Your task to perform on an android device: allow notifications from all sites in the chrome app Image 0: 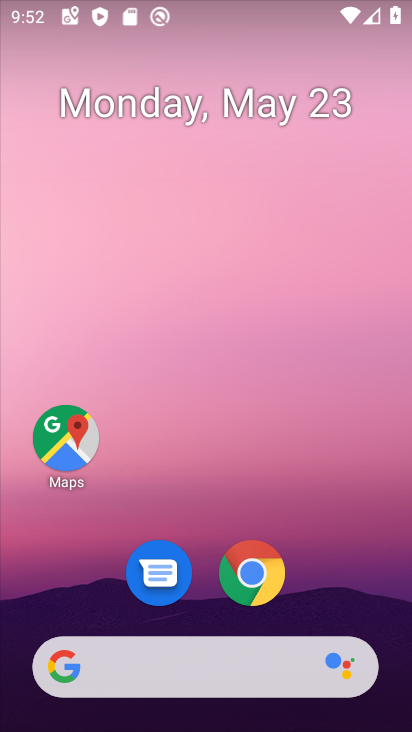
Step 0: drag from (386, 615) to (373, 129)
Your task to perform on an android device: allow notifications from all sites in the chrome app Image 1: 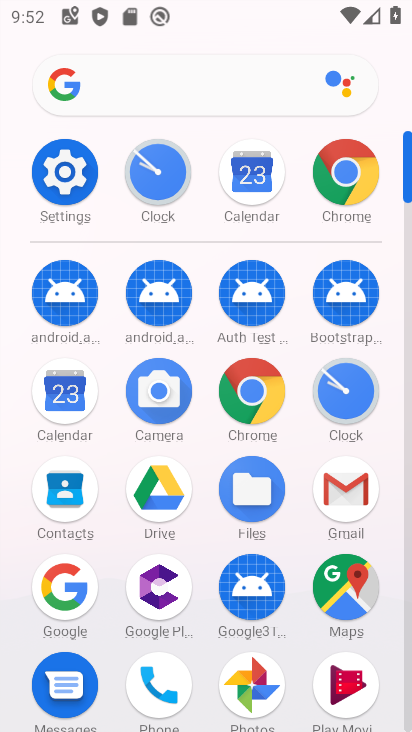
Step 1: click (254, 410)
Your task to perform on an android device: allow notifications from all sites in the chrome app Image 2: 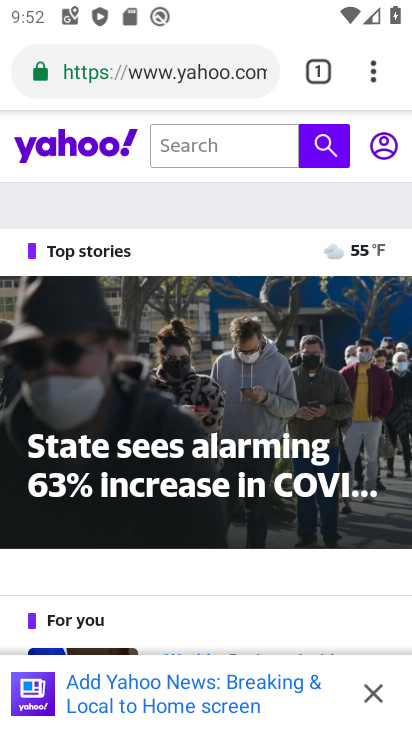
Step 2: click (372, 83)
Your task to perform on an android device: allow notifications from all sites in the chrome app Image 3: 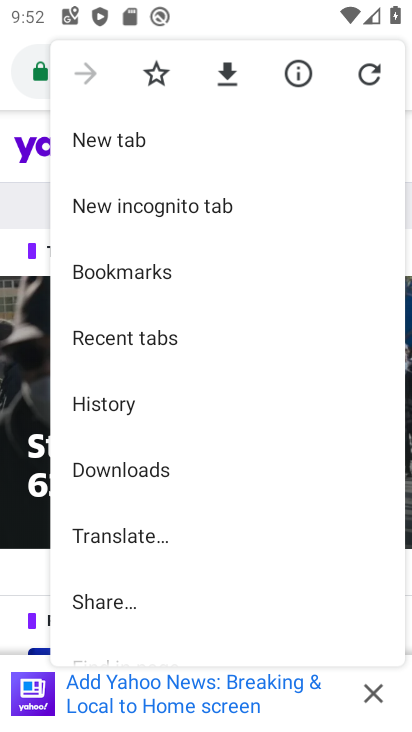
Step 3: drag from (334, 513) to (332, 364)
Your task to perform on an android device: allow notifications from all sites in the chrome app Image 4: 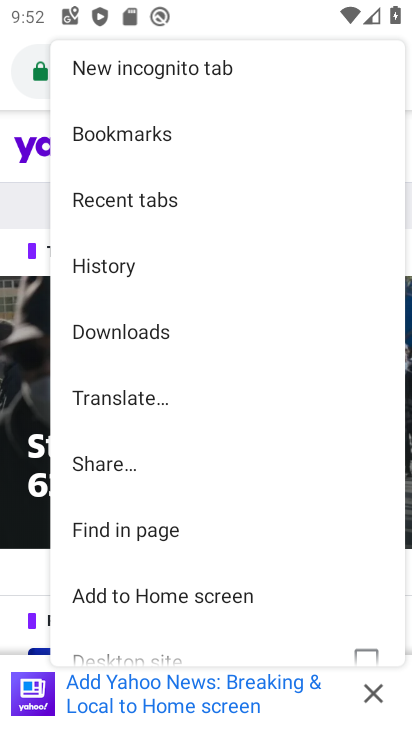
Step 4: drag from (312, 593) to (313, 492)
Your task to perform on an android device: allow notifications from all sites in the chrome app Image 5: 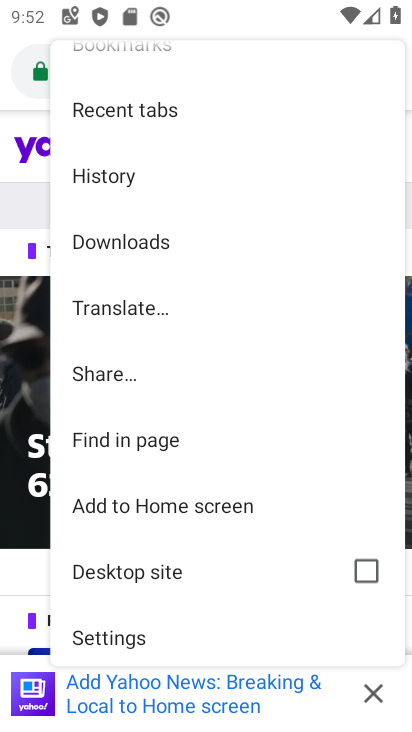
Step 5: drag from (318, 613) to (311, 504)
Your task to perform on an android device: allow notifications from all sites in the chrome app Image 6: 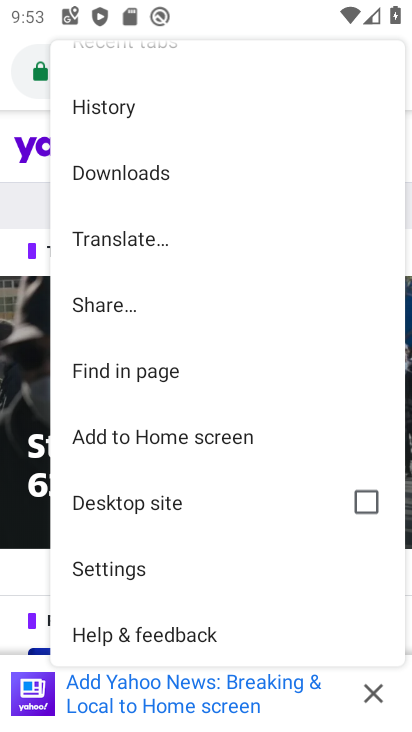
Step 6: click (128, 566)
Your task to perform on an android device: allow notifications from all sites in the chrome app Image 7: 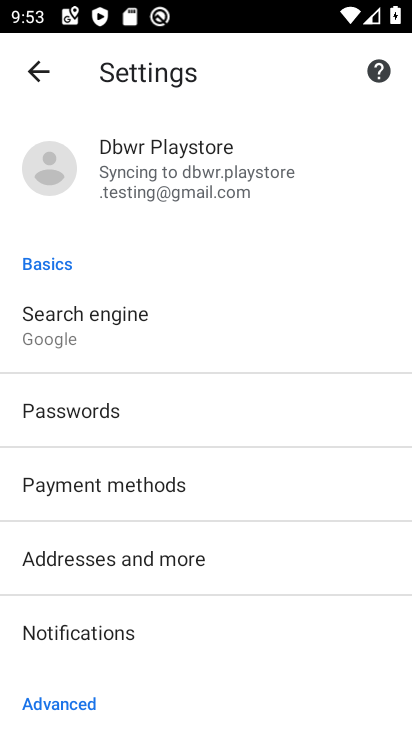
Step 7: drag from (355, 668) to (344, 573)
Your task to perform on an android device: allow notifications from all sites in the chrome app Image 8: 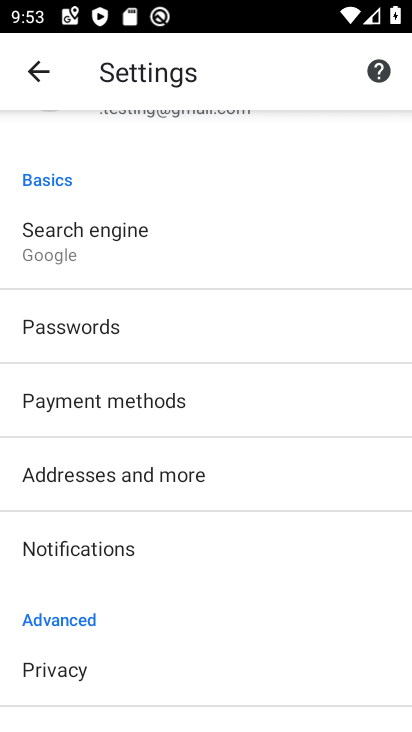
Step 8: drag from (326, 647) to (325, 542)
Your task to perform on an android device: allow notifications from all sites in the chrome app Image 9: 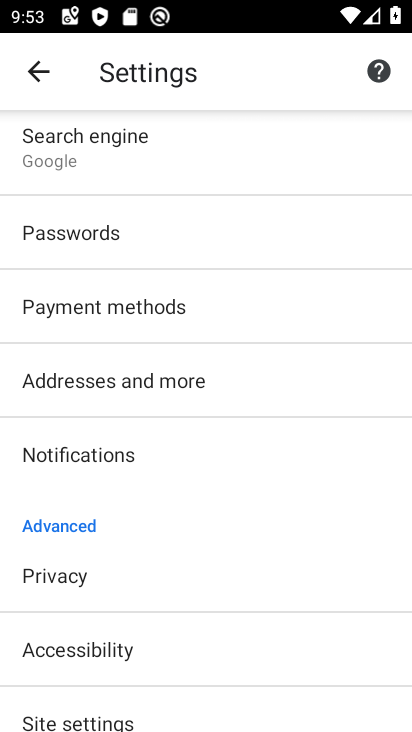
Step 9: drag from (306, 612) to (312, 522)
Your task to perform on an android device: allow notifications from all sites in the chrome app Image 10: 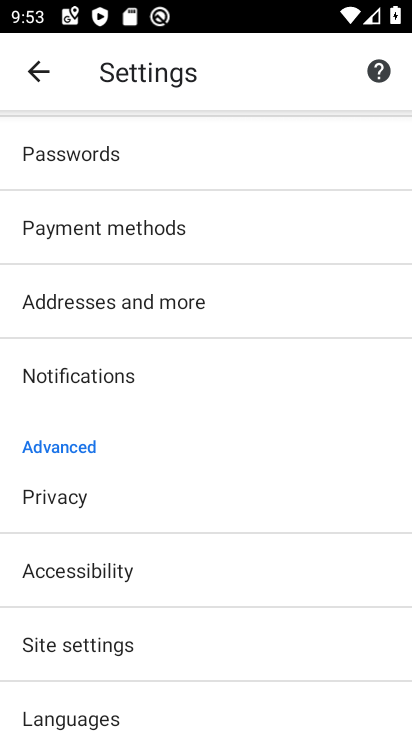
Step 10: drag from (314, 641) to (320, 550)
Your task to perform on an android device: allow notifications from all sites in the chrome app Image 11: 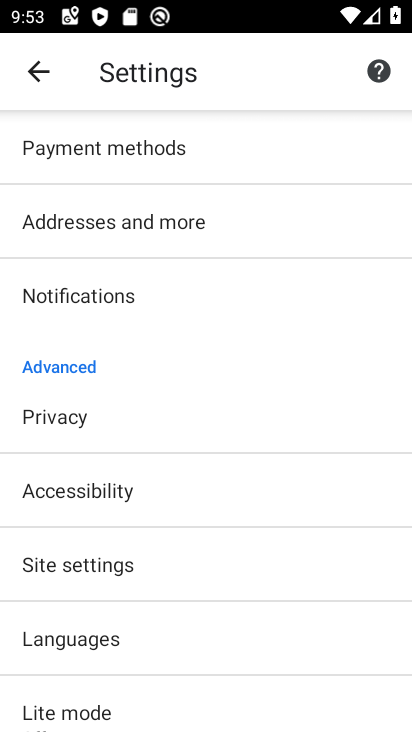
Step 11: drag from (310, 612) to (312, 517)
Your task to perform on an android device: allow notifications from all sites in the chrome app Image 12: 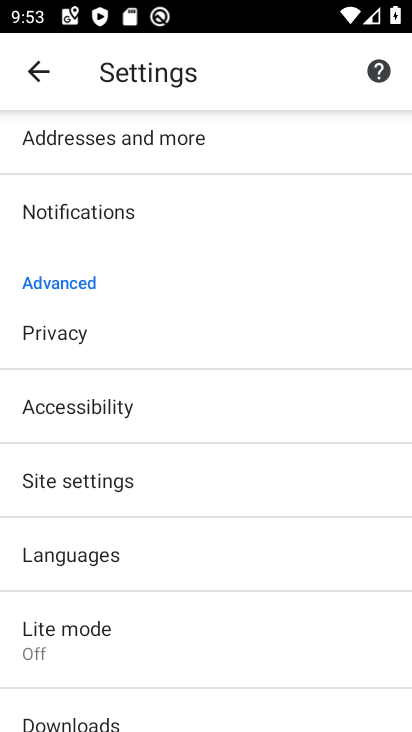
Step 12: drag from (315, 643) to (317, 552)
Your task to perform on an android device: allow notifications from all sites in the chrome app Image 13: 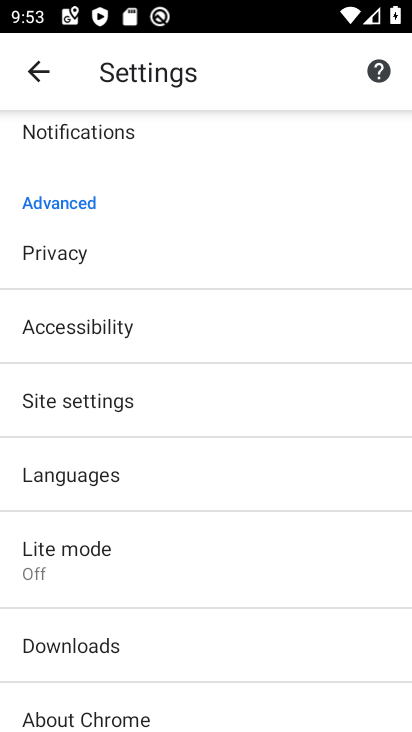
Step 13: drag from (258, 646) to (259, 543)
Your task to perform on an android device: allow notifications from all sites in the chrome app Image 14: 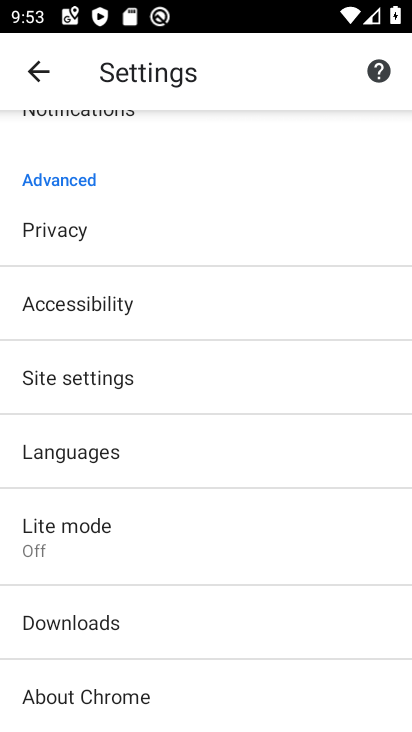
Step 14: click (199, 379)
Your task to perform on an android device: allow notifications from all sites in the chrome app Image 15: 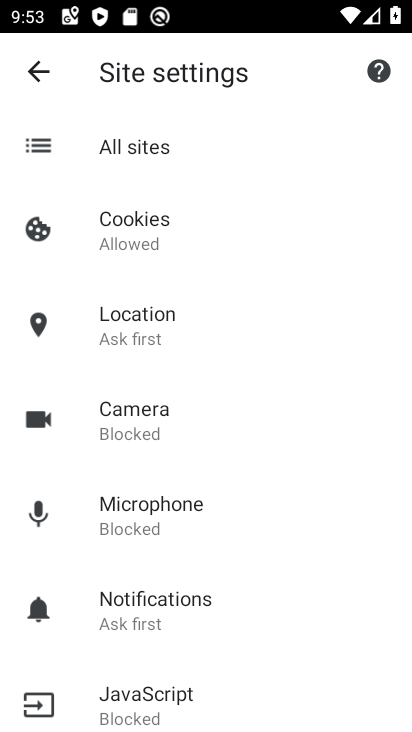
Step 15: drag from (308, 593) to (313, 511)
Your task to perform on an android device: allow notifications from all sites in the chrome app Image 16: 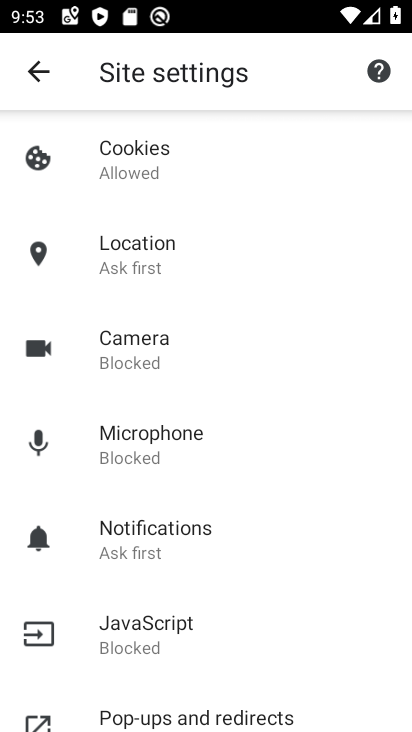
Step 16: drag from (347, 660) to (352, 541)
Your task to perform on an android device: allow notifications from all sites in the chrome app Image 17: 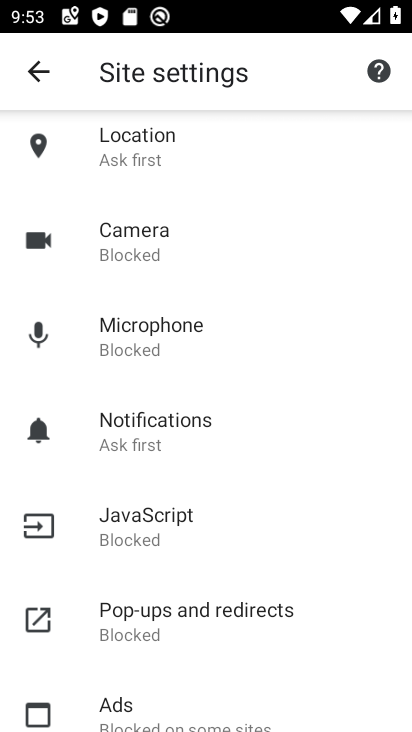
Step 17: drag from (352, 637) to (360, 551)
Your task to perform on an android device: allow notifications from all sites in the chrome app Image 18: 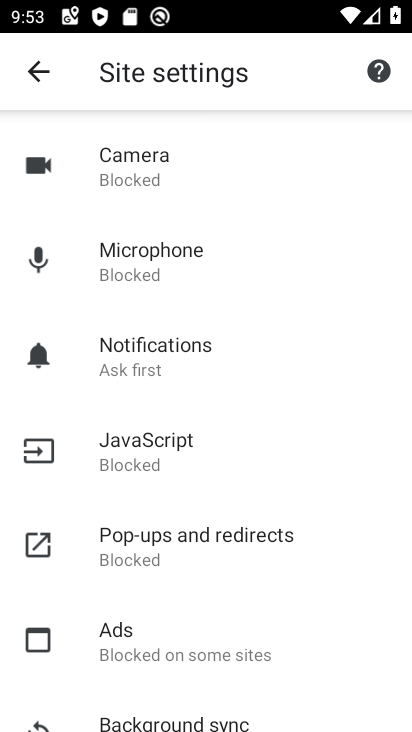
Step 18: drag from (357, 650) to (359, 548)
Your task to perform on an android device: allow notifications from all sites in the chrome app Image 19: 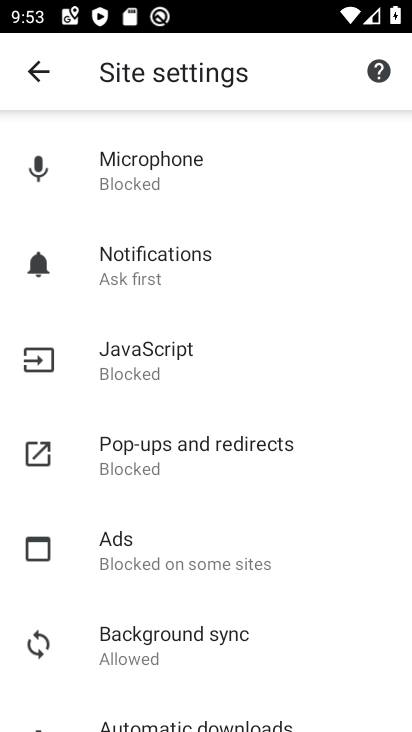
Step 19: drag from (355, 655) to (361, 562)
Your task to perform on an android device: allow notifications from all sites in the chrome app Image 20: 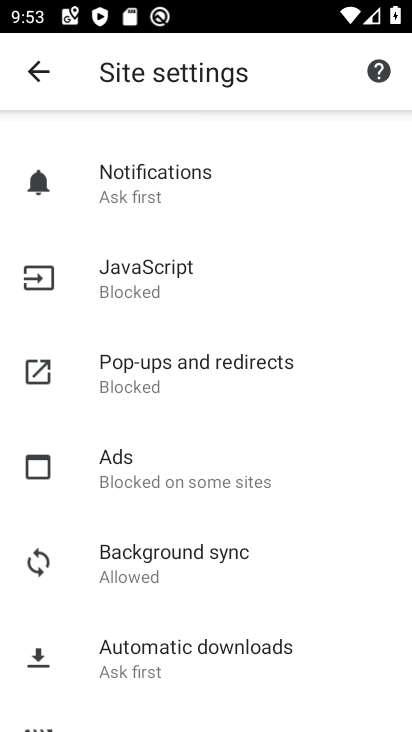
Step 20: drag from (359, 662) to (368, 576)
Your task to perform on an android device: allow notifications from all sites in the chrome app Image 21: 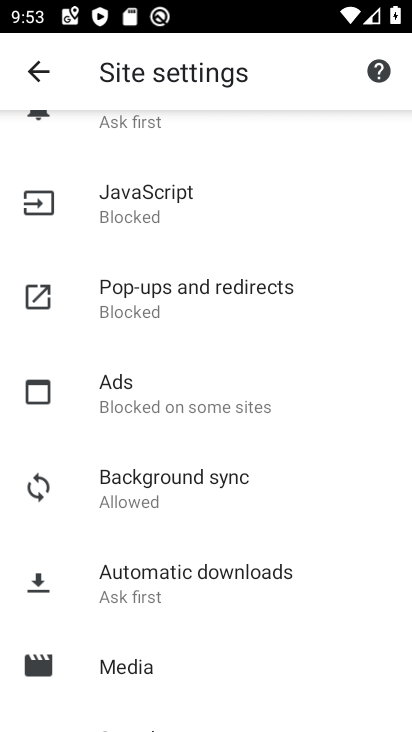
Step 21: drag from (370, 410) to (360, 543)
Your task to perform on an android device: allow notifications from all sites in the chrome app Image 22: 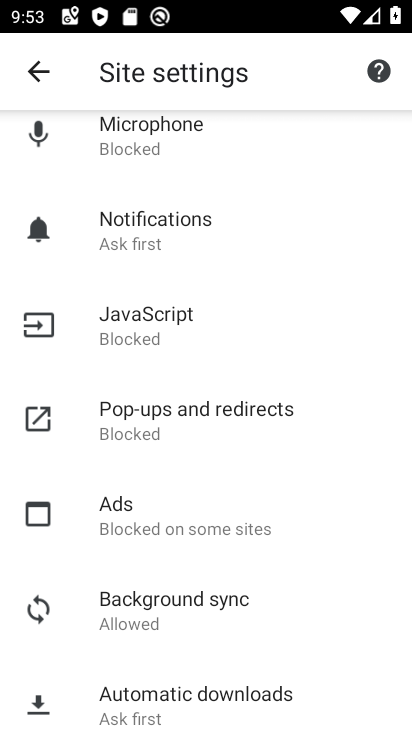
Step 22: drag from (350, 382) to (350, 503)
Your task to perform on an android device: allow notifications from all sites in the chrome app Image 23: 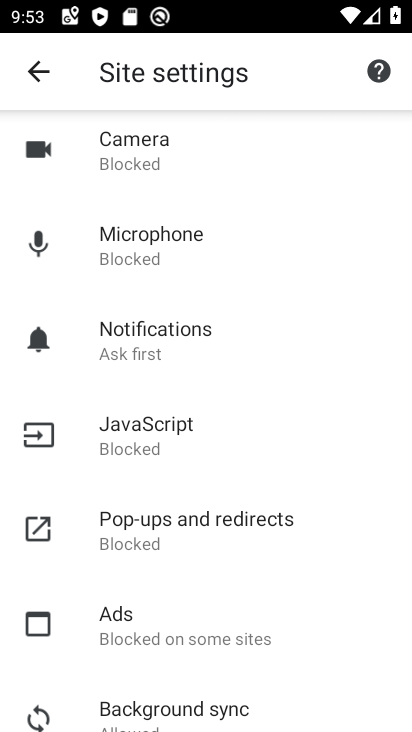
Step 23: drag from (344, 358) to (333, 464)
Your task to perform on an android device: allow notifications from all sites in the chrome app Image 24: 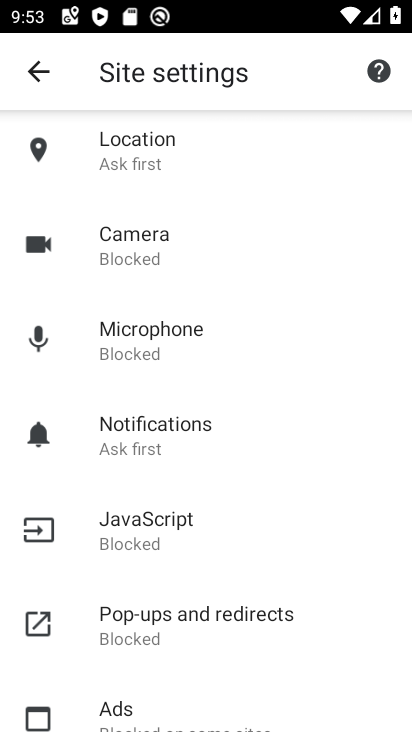
Step 24: drag from (335, 366) to (335, 468)
Your task to perform on an android device: allow notifications from all sites in the chrome app Image 25: 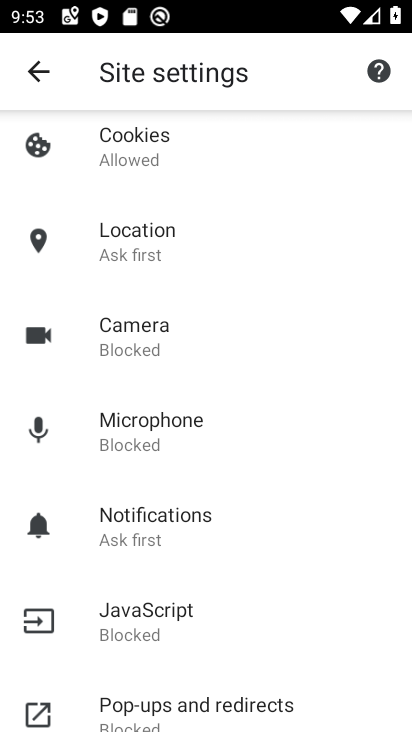
Step 25: drag from (319, 315) to (319, 457)
Your task to perform on an android device: allow notifications from all sites in the chrome app Image 26: 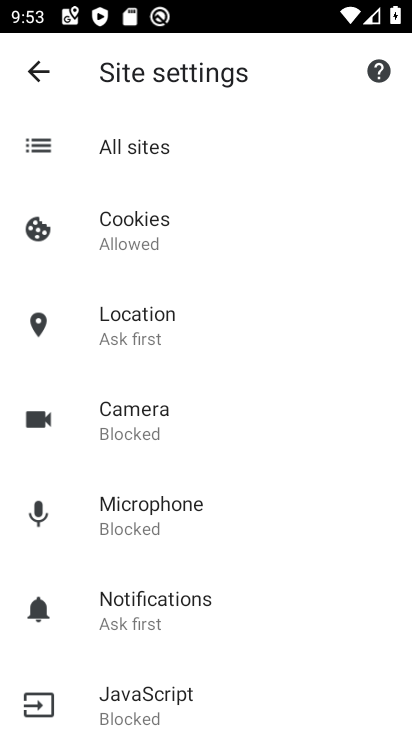
Step 26: drag from (319, 290) to (319, 405)
Your task to perform on an android device: allow notifications from all sites in the chrome app Image 27: 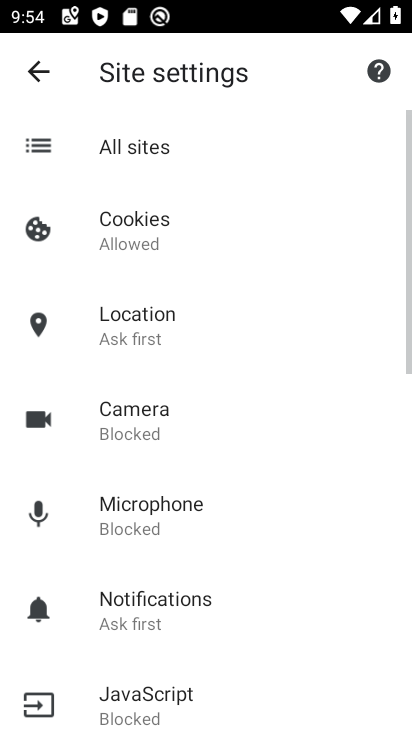
Step 27: drag from (319, 494) to (318, 395)
Your task to perform on an android device: allow notifications from all sites in the chrome app Image 28: 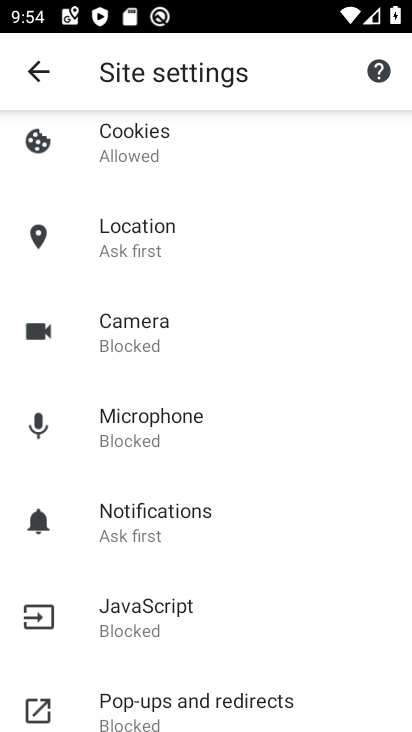
Step 28: click (247, 522)
Your task to perform on an android device: allow notifications from all sites in the chrome app Image 29: 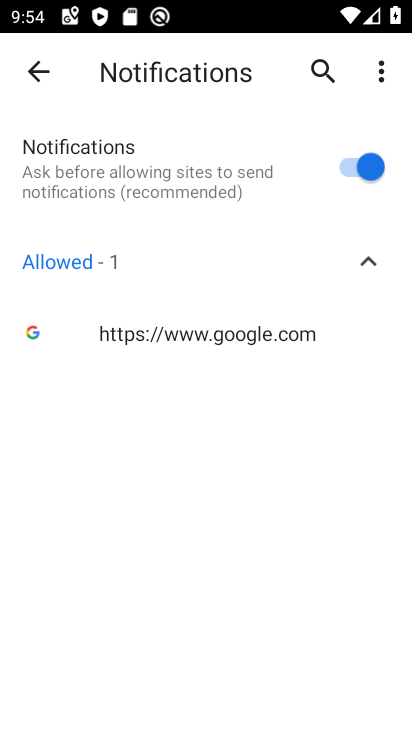
Step 29: task complete